Your task to perform on an android device: turn off sleep mode Image 0: 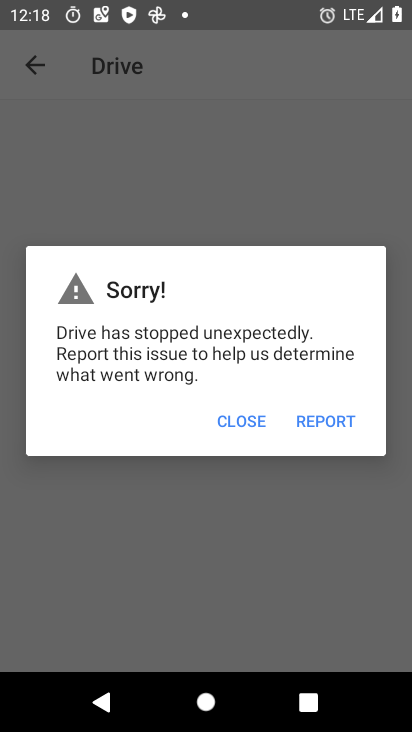
Step 0: press home button
Your task to perform on an android device: turn off sleep mode Image 1: 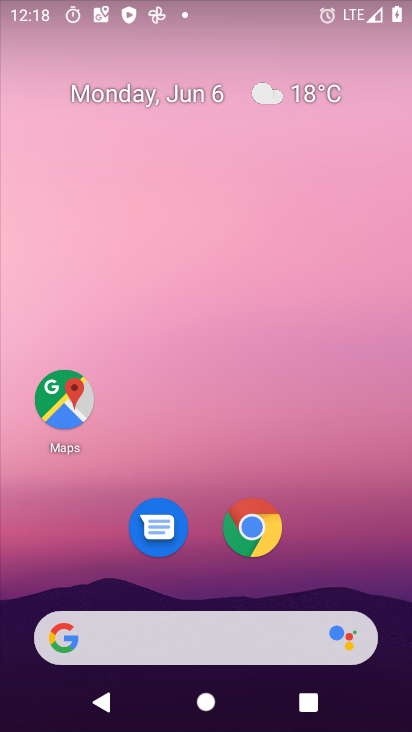
Step 1: drag from (315, 549) to (201, 70)
Your task to perform on an android device: turn off sleep mode Image 2: 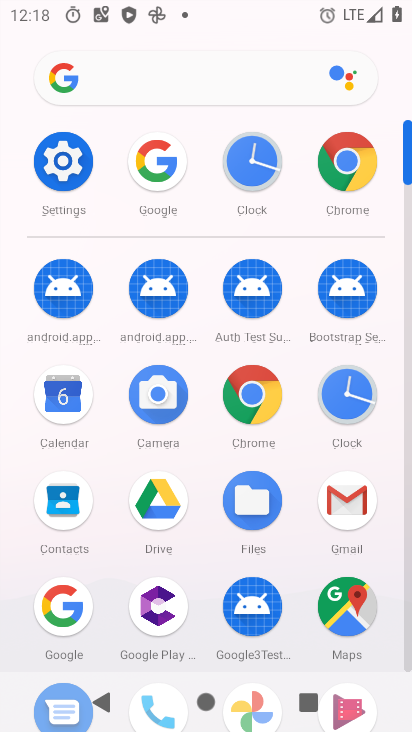
Step 2: click (66, 174)
Your task to perform on an android device: turn off sleep mode Image 3: 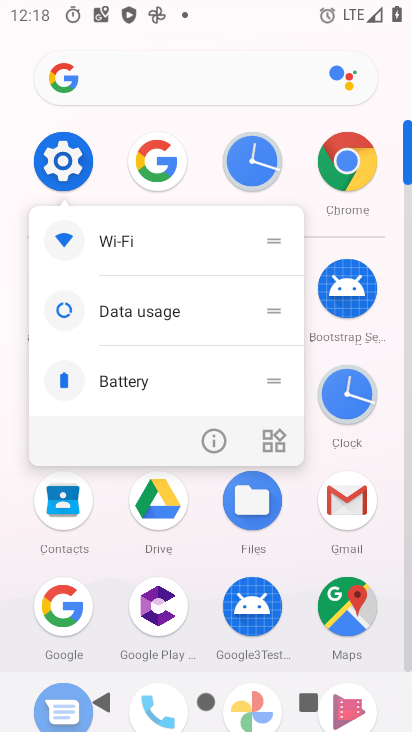
Step 3: click (56, 154)
Your task to perform on an android device: turn off sleep mode Image 4: 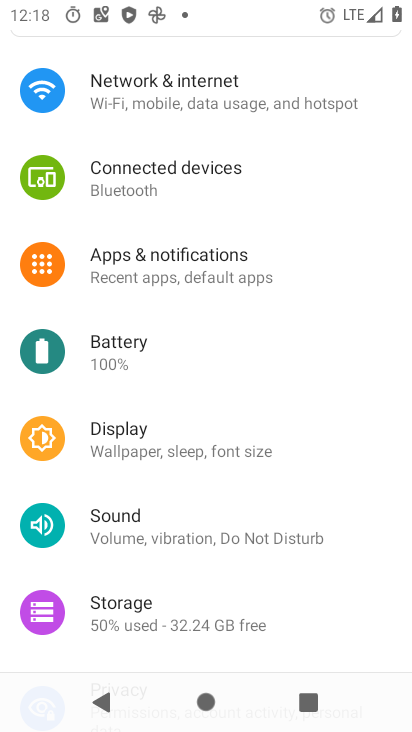
Step 4: click (181, 263)
Your task to perform on an android device: turn off sleep mode Image 5: 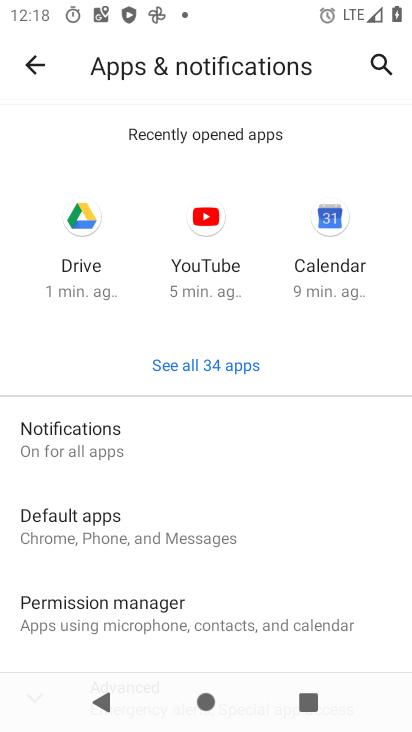
Step 5: press back button
Your task to perform on an android device: turn off sleep mode Image 6: 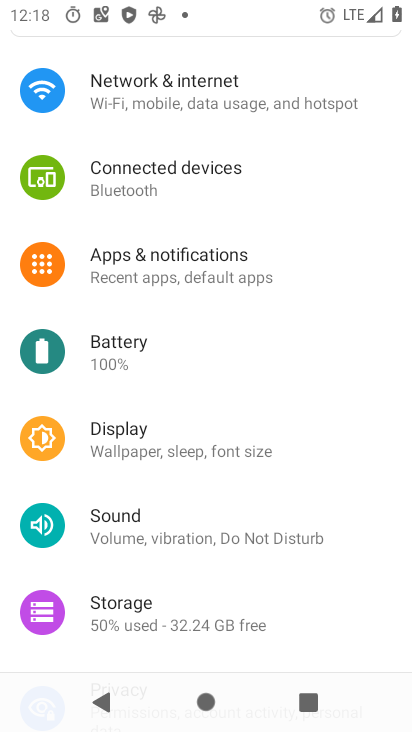
Step 6: click (187, 450)
Your task to perform on an android device: turn off sleep mode Image 7: 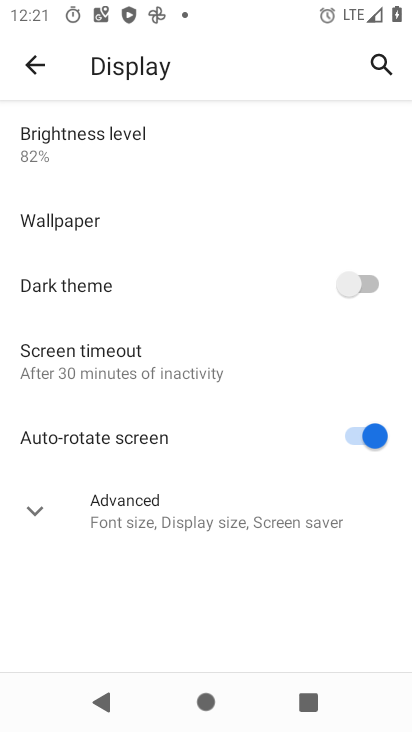
Step 7: task complete